Your task to perform on an android device: Go to sound settings Image 0: 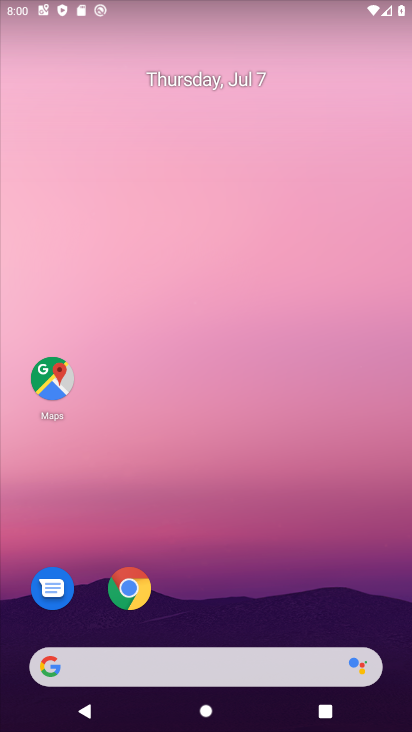
Step 0: drag from (214, 610) to (359, 9)
Your task to perform on an android device: Go to sound settings Image 1: 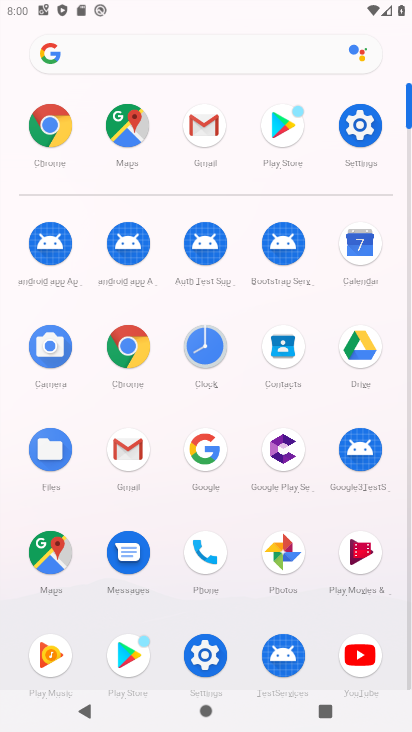
Step 1: click (348, 121)
Your task to perform on an android device: Go to sound settings Image 2: 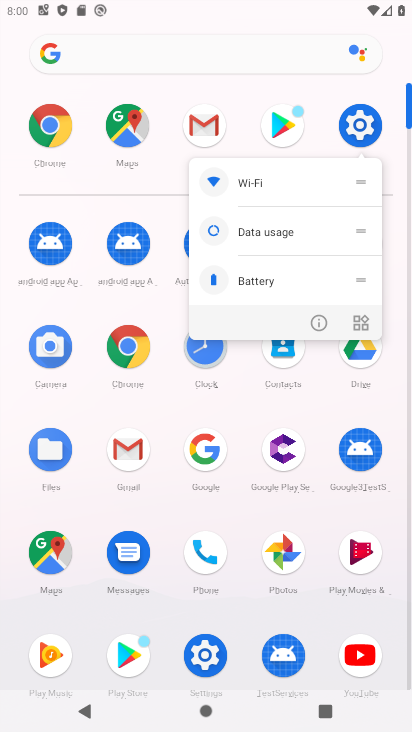
Step 2: click (324, 311)
Your task to perform on an android device: Go to sound settings Image 3: 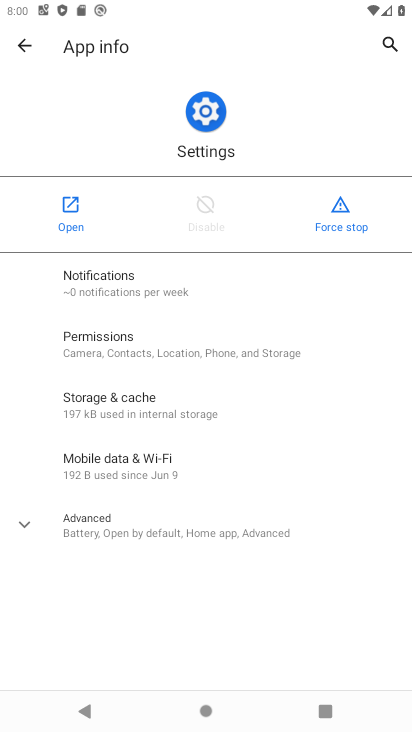
Step 3: click (75, 215)
Your task to perform on an android device: Go to sound settings Image 4: 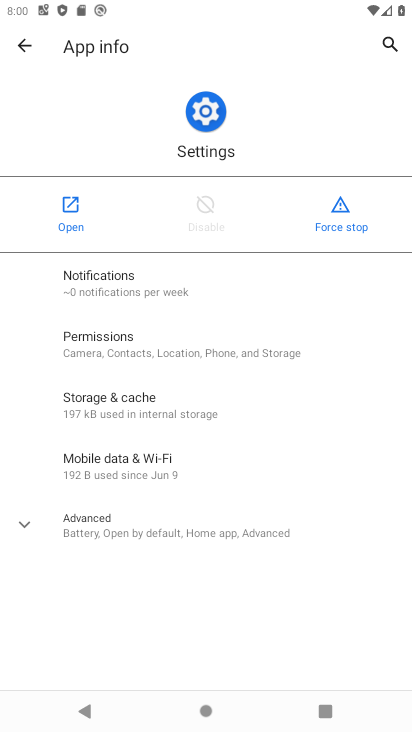
Step 4: click (75, 215)
Your task to perform on an android device: Go to sound settings Image 5: 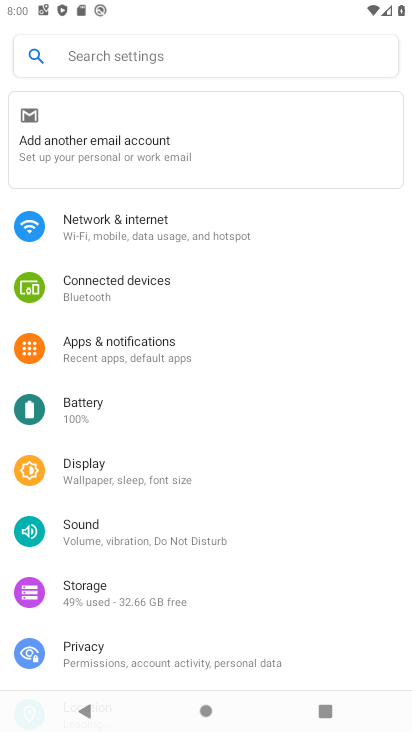
Step 5: click (110, 522)
Your task to perform on an android device: Go to sound settings Image 6: 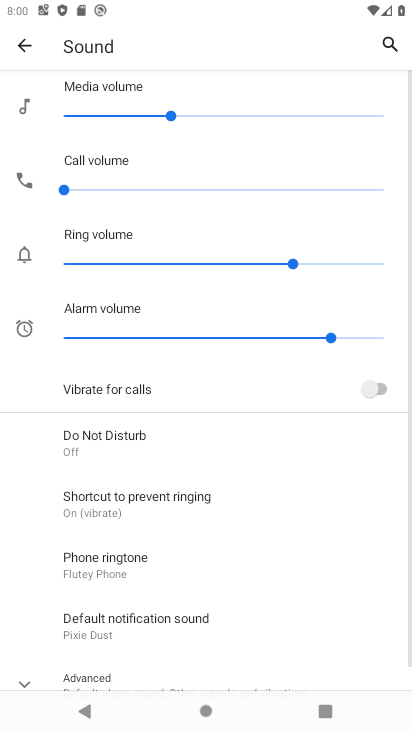
Step 6: task complete